Your task to perform on an android device: Go to Yahoo.com Image 0: 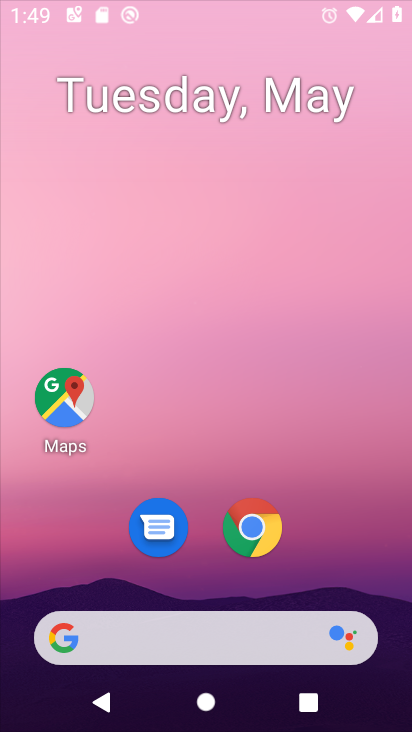
Step 0: press home button
Your task to perform on an android device: Go to Yahoo.com Image 1: 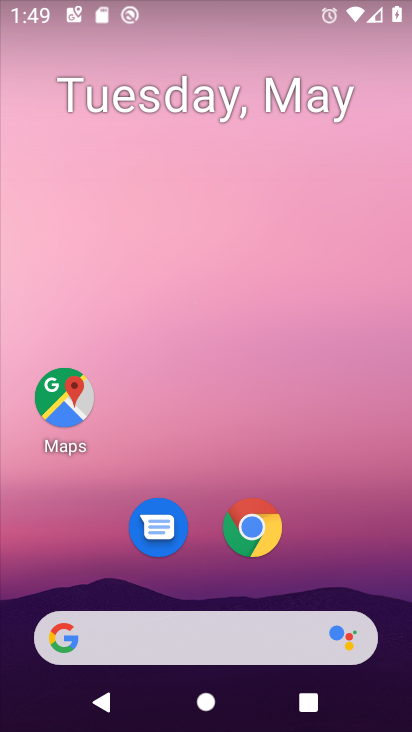
Step 1: click (248, 617)
Your task to perform on an android device: Go to Yahoo.com Image 2: 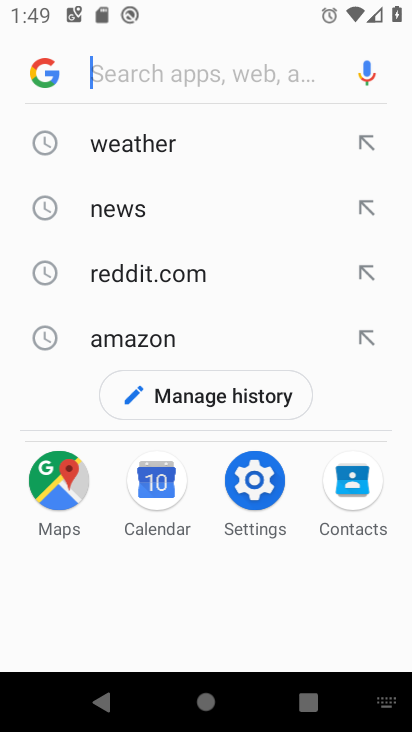
Step 2: type "yahoo.com"
Your task to perform on an android device: Go to Yahoo.com Image 3: 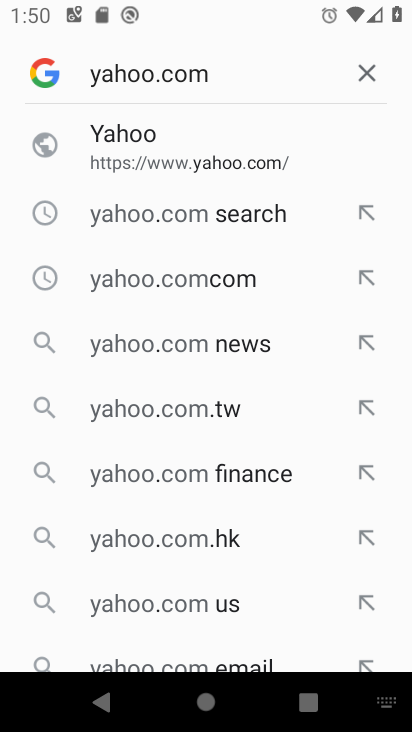
Step 3: click (207, 159)
Your task to perform on an android device: Go to Yahoo.com Image 4: 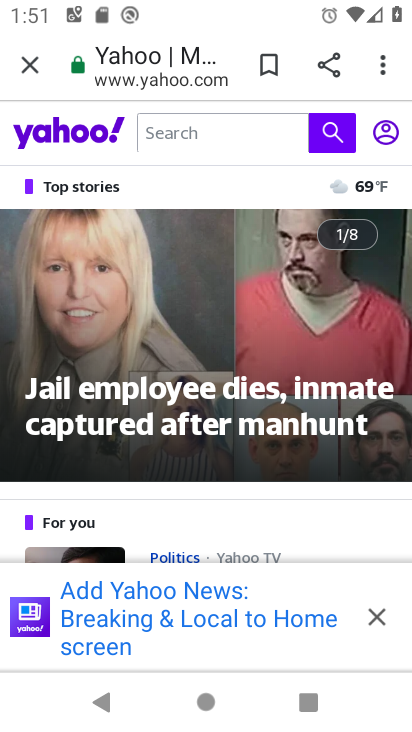
Step 4: task complete